Your task to perform on an android device: Open Google Chrome and click the shortcut for Amazon.com Image 0: 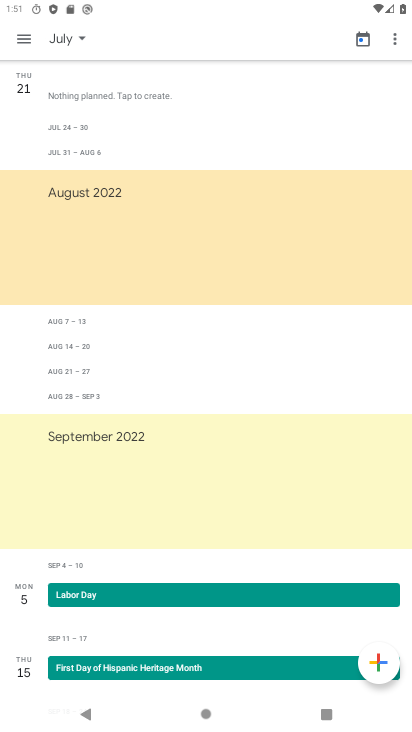
Step 0: drag from (219, 534) to (359, 314)
Your task to perform on an android device: Open Google Chrome and click the shortcut for Amazon.com Image 1: 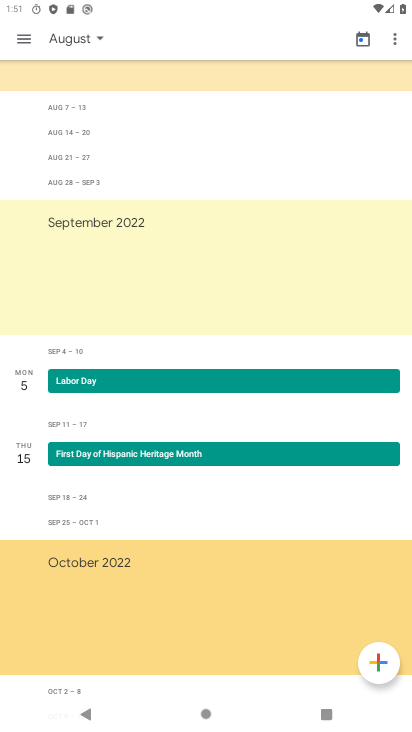
Step 1: press home button
Your task to perform on an android device: Open Google Chrome and click the shortcut for Amazon.com Image 2: 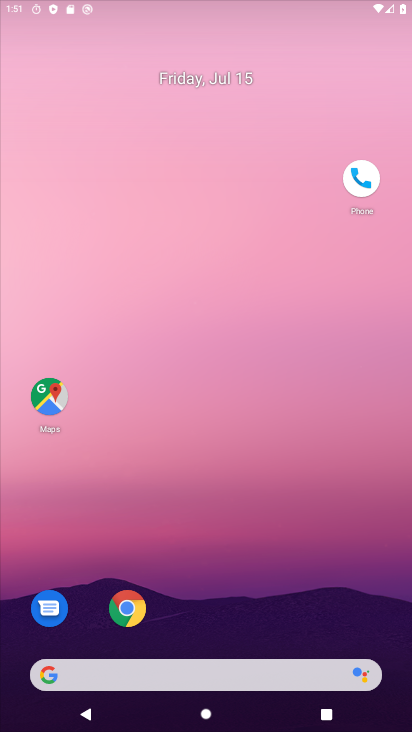
Step 2: drag from (150, 624) to (241, 324)
Your task to perform on an android device: Open Google Chrome and click the shortcut for Amazon.com Image 3: 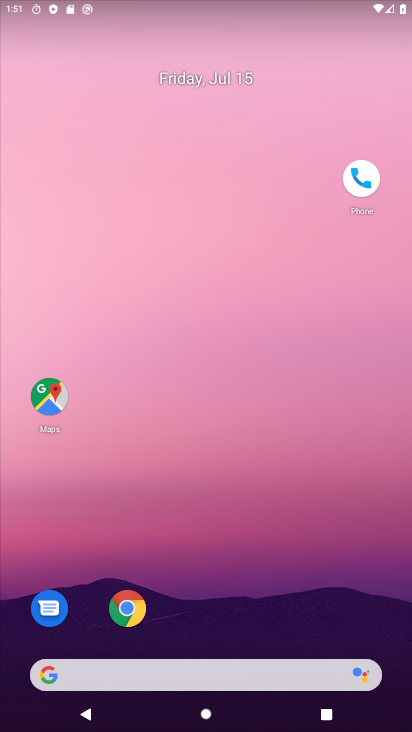
Step 3: click (136, 610)
Your task to perform on an android device: Open Google Chrome and click the shortcut for Amazon.com Image 4: 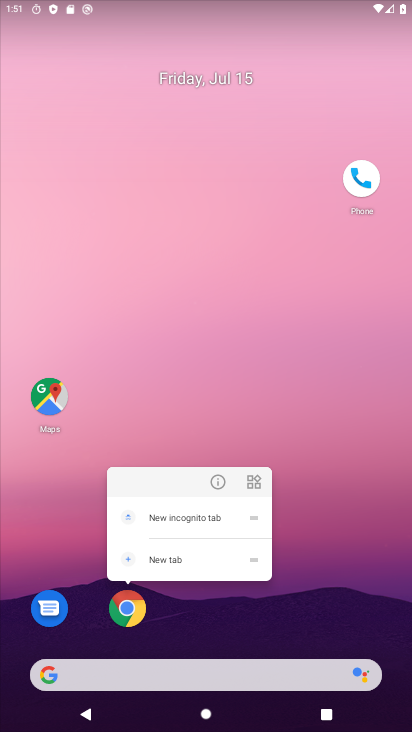
Step 4: click (218, 44)
Your task to perform on an android device: Open Google Chrome and click the shortcut for Amazon.com Image 5: 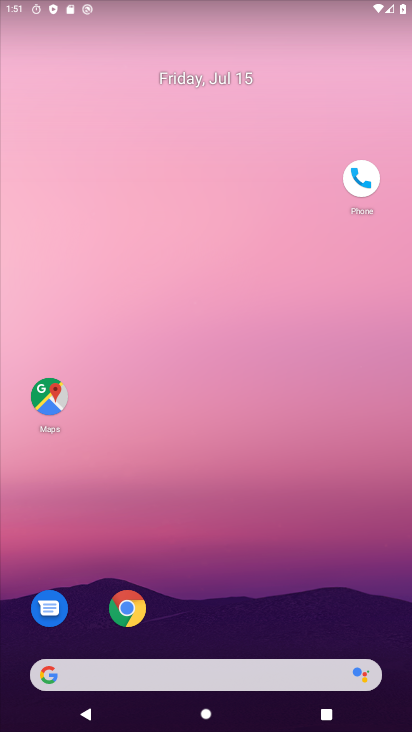
Step 5: drag from (175, 639) to (240, 58)
Your task to perform on an android device: Open Google Chrome and click the shortcut for Amazon.com Image 6: 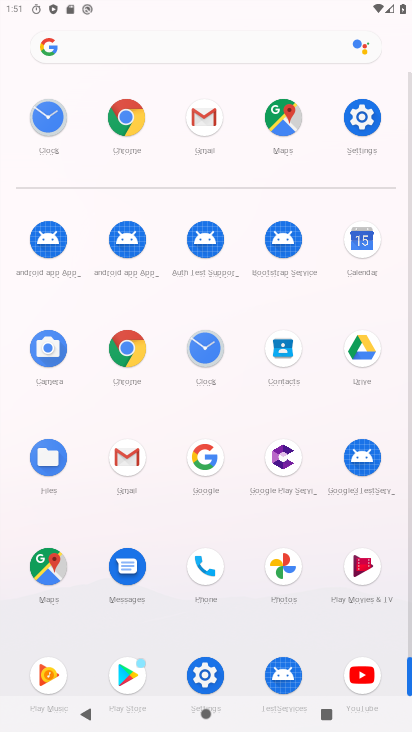
Step 6: click (128, 341)
Your task to perform on an android device: Open Google Chrome and click the shortcut for Amazon.com Image 7: 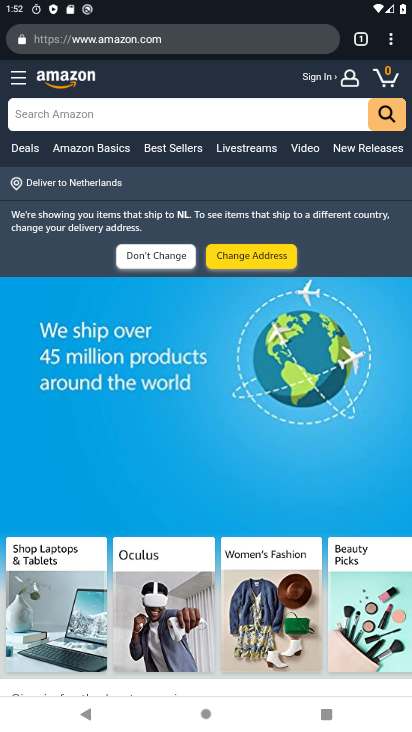
Step 7: task complete